Your task to perform on an android device: Open my contact list Image 0: 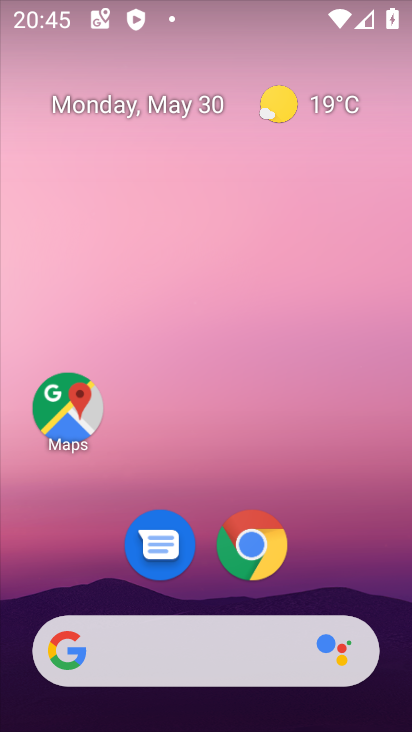
Step 0: drag from (328, 552) to (322, 176)
Your task to perform on an android device: Open my contact list Image 1: 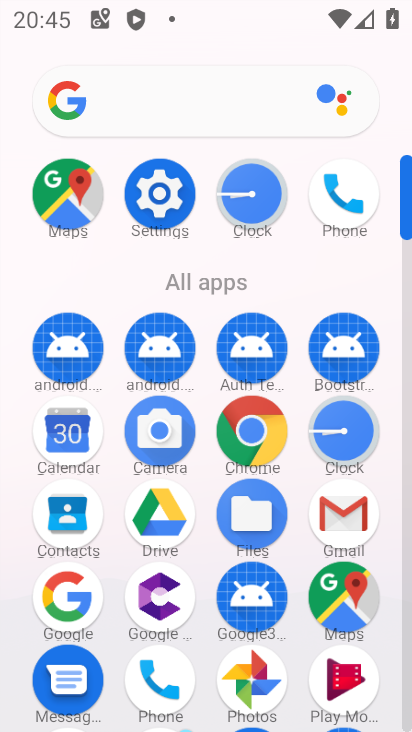
Step 1: click (68, 523)
Your task to perform on an android device: Open my contact list Image 2: 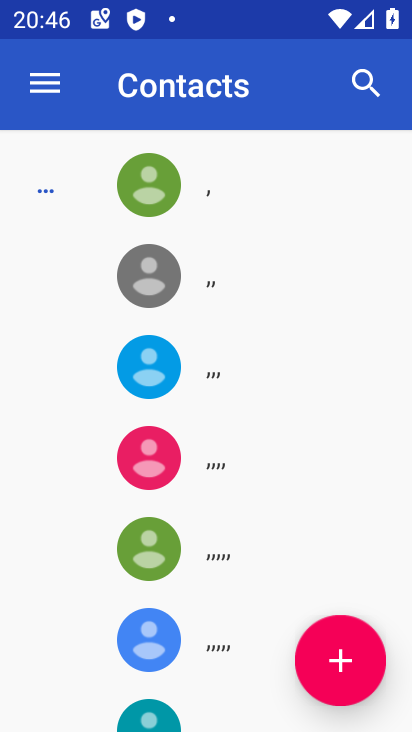
Step 2: task complete